Your task to perform on an android device: change alarm snooze length Image 0: 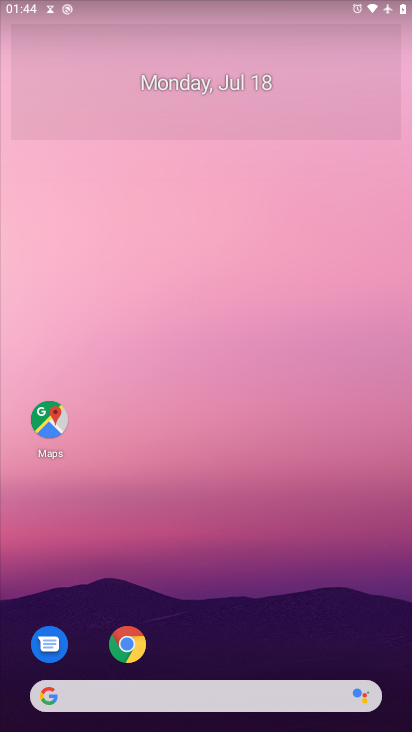
Step 0: press home button
Your task to perform on an android device: change alarm snooze length Image 1: 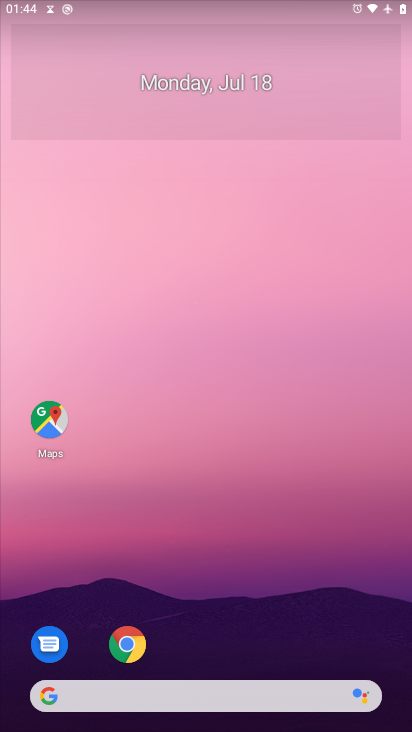
Step 1: drag from (282, 646) to (245, 64)
Your task to perform on an android device: change alarm snooze length Image 2: 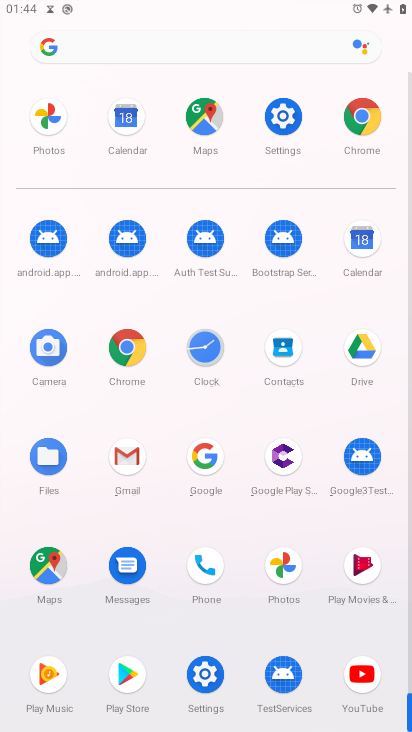
Step 2: click (201, 355)
Your task to perform on an android device: change alarm snooze length Image 3: 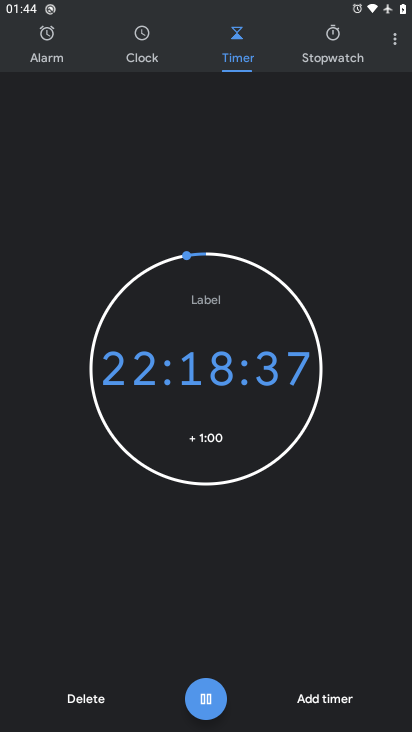
Step 3: click (400, 33)
Your task to perform on an android device: change alarm snooze length Image 4: 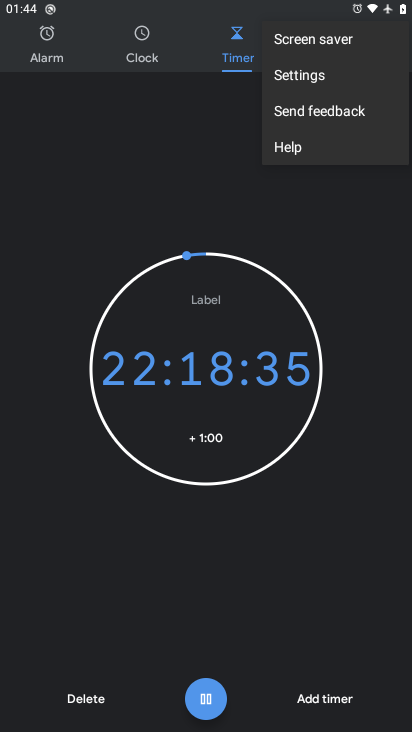
Step 4: click (300, 74)
Your task to perform on an android device: change alarm snooze length Image 5: 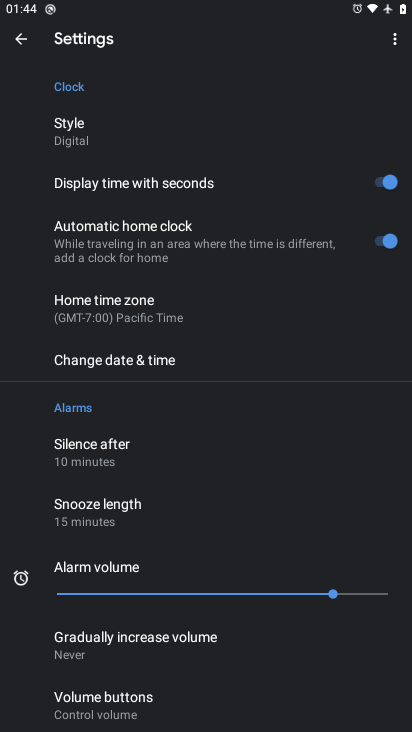
Step 5: click (93, 501)
Your task to perform on an android device: change alarm snooze length Image 6: 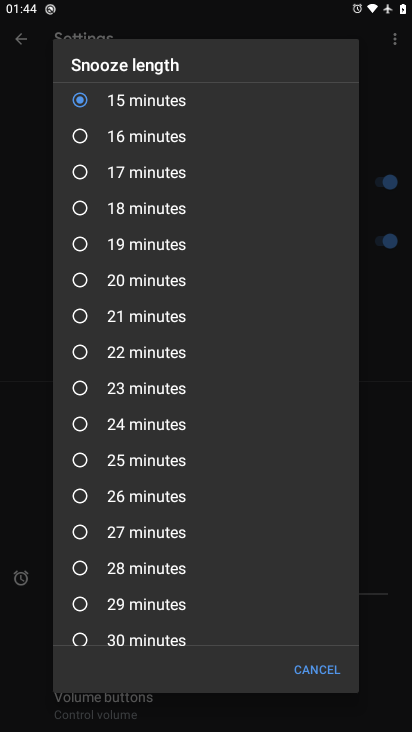
Step 6: click (82, 141)
Your task to perform on an android device: change alarm snooze length Image 7: 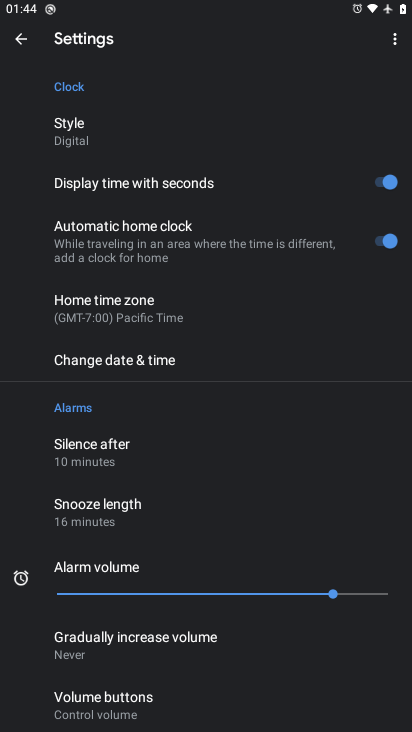
Step 7: task complete